Your task to perform on an android device: Open location settings Image 0: 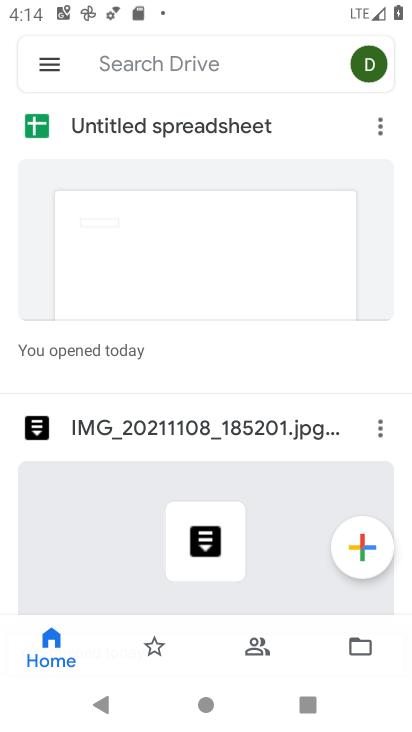
Step 0: press home button
Your task to perform on an android device: Open location settings Image 1: 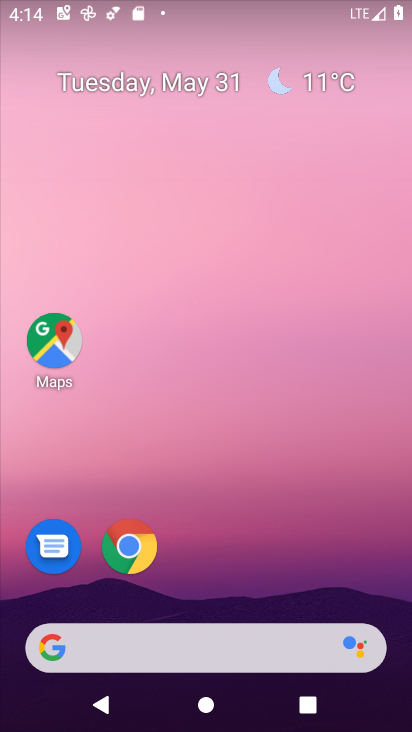
Step 1: drag from (249, 432) to (131, 3)
Your task to perform on an android device: Open location settings Image 2: 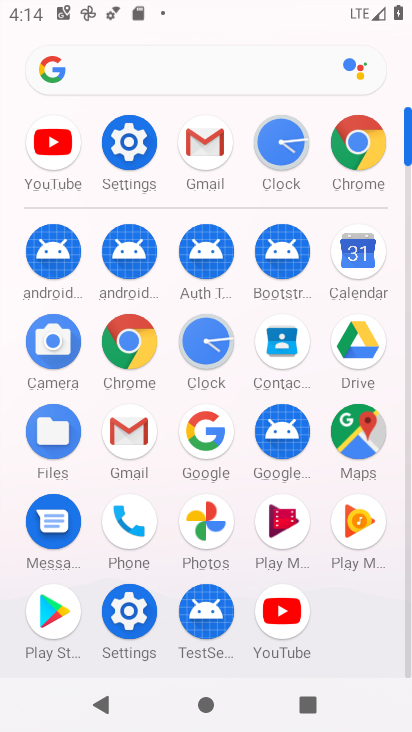
Step 2: click (122, 135)
Your task to perform on an android device: Open location settings Image 3: 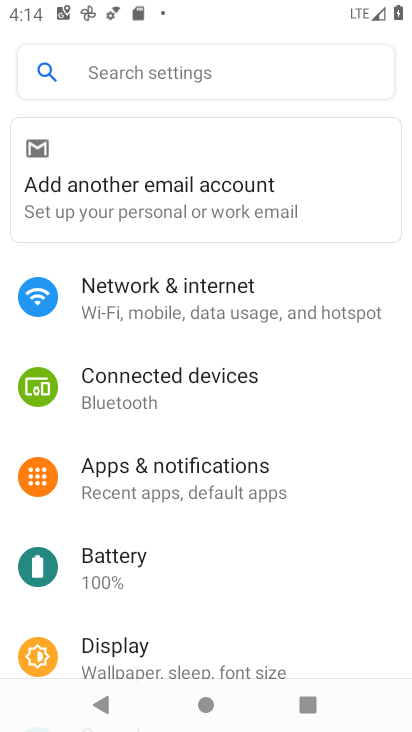
Step 3: drag from (207, 590) to (220, 179)
Your task to perform on an android device: Open location settings Image 4: 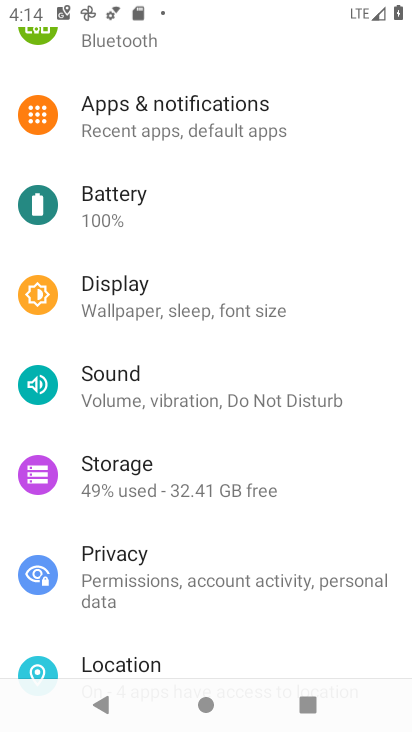
Step 4: click (171, 655)
Your task to perform on an android device: Open location settings Image 5: 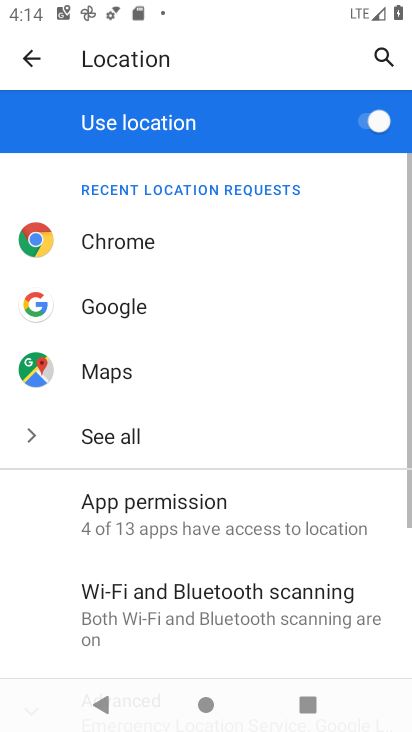
Step 5: task complete